Your task to perform on an android device: check storage Image 0: 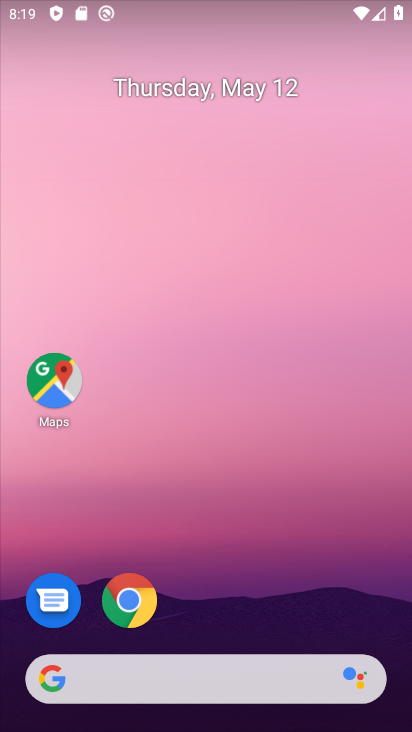
Step 0: drag from (272, 628) to (212, 131)
Your task to perform on an android device: check storage Image 1: 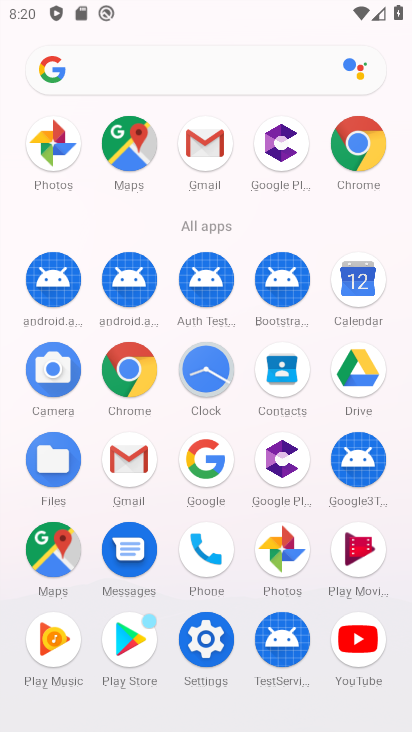
Step 1: click (209, 648)
Your task to perform on an android device: check storage Image 2: 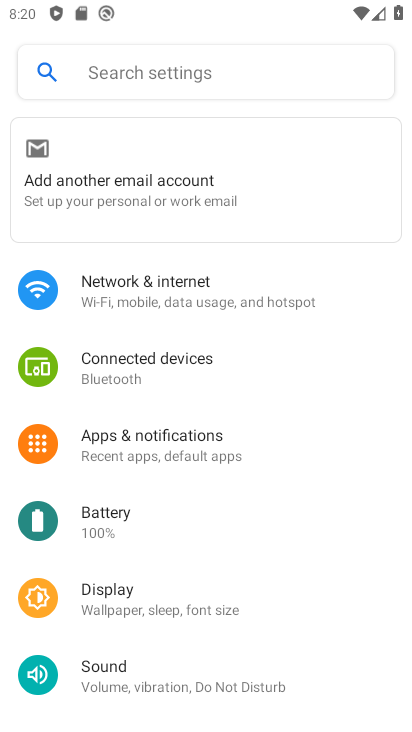
Step 2: drag from (181, 651) to (214, 238)
Your task to perform on an android device: check storage Image 3: 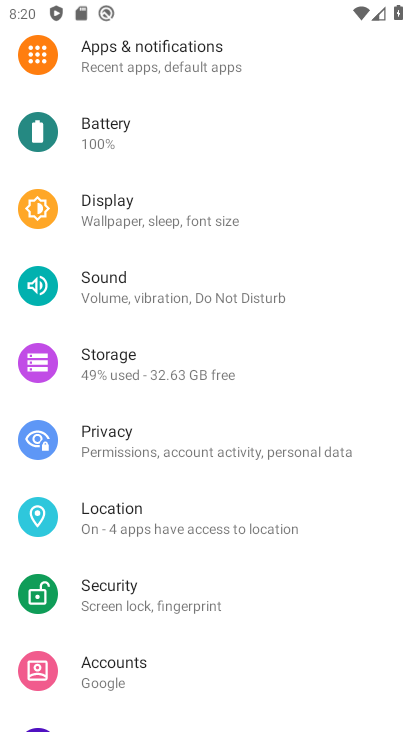
Step 3: click (136, 376)
Your task to perform on an android device: check storage Image 4: 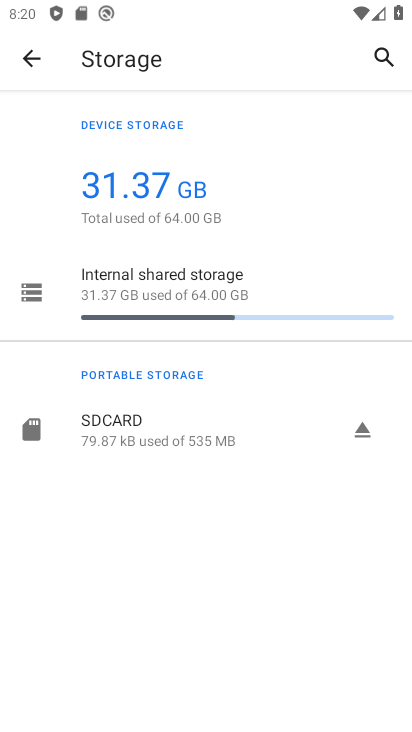
Step 4: task complete